Your task to perform on an android device: Search for the best rated tool bag on Lowe's. Image 0: 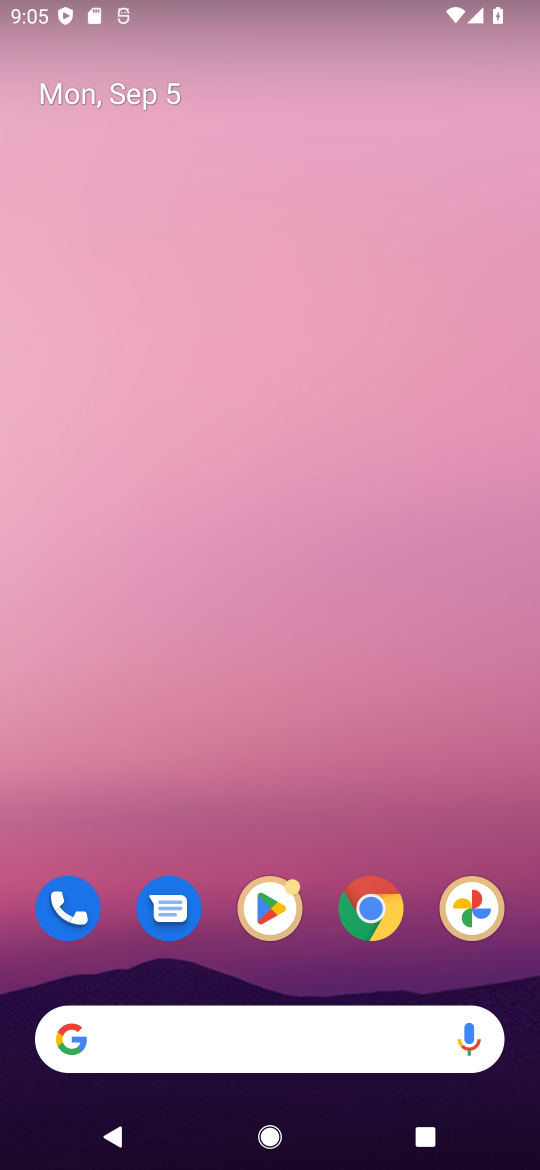
Step 0: drag from (220, 0) to (295, 34)
Your task to perform on an android device: Search for the best rated tool bag on Lowe's. Image 1: 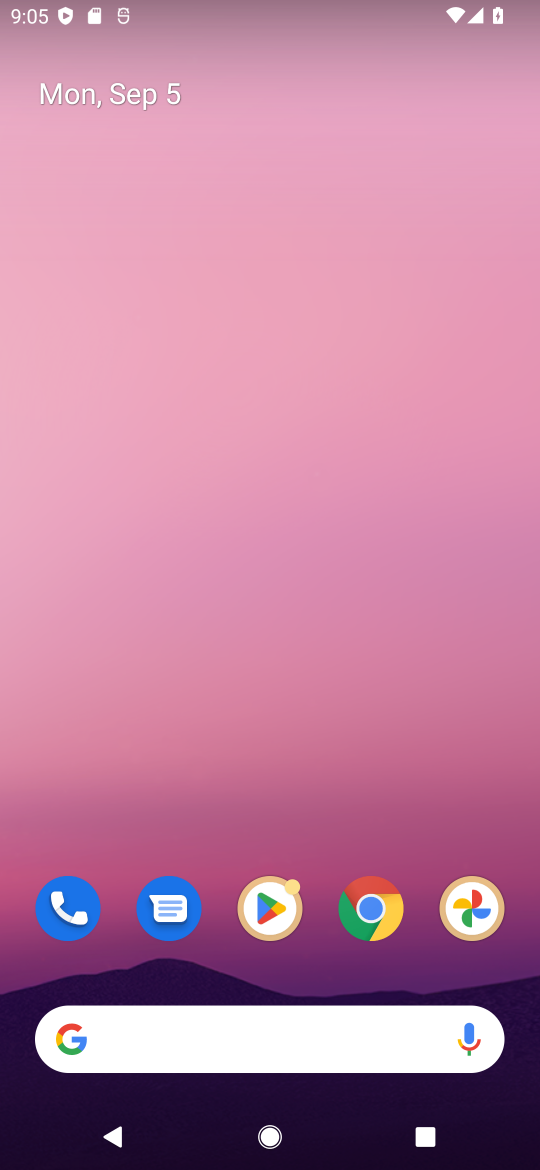
Step 1: click (372, 928)
Your task to perform on an android device: Search for the best rated tool bag on Lowe's. Image 2: 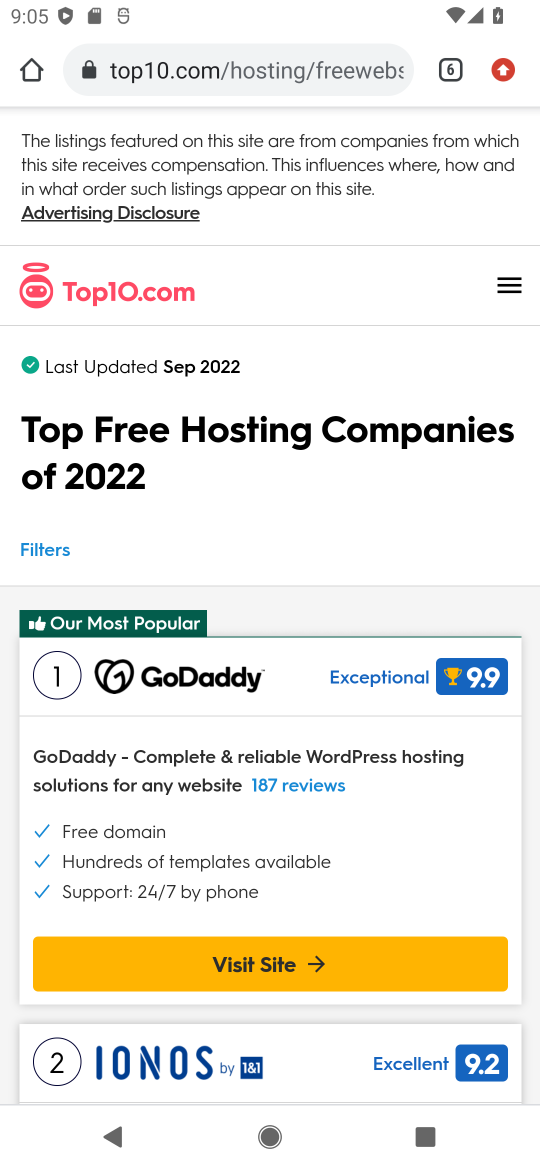
Step 2: click (236, 60)
Your task to perform on an android device: Search for the best rated tool bag on Lowe's. Image 3: 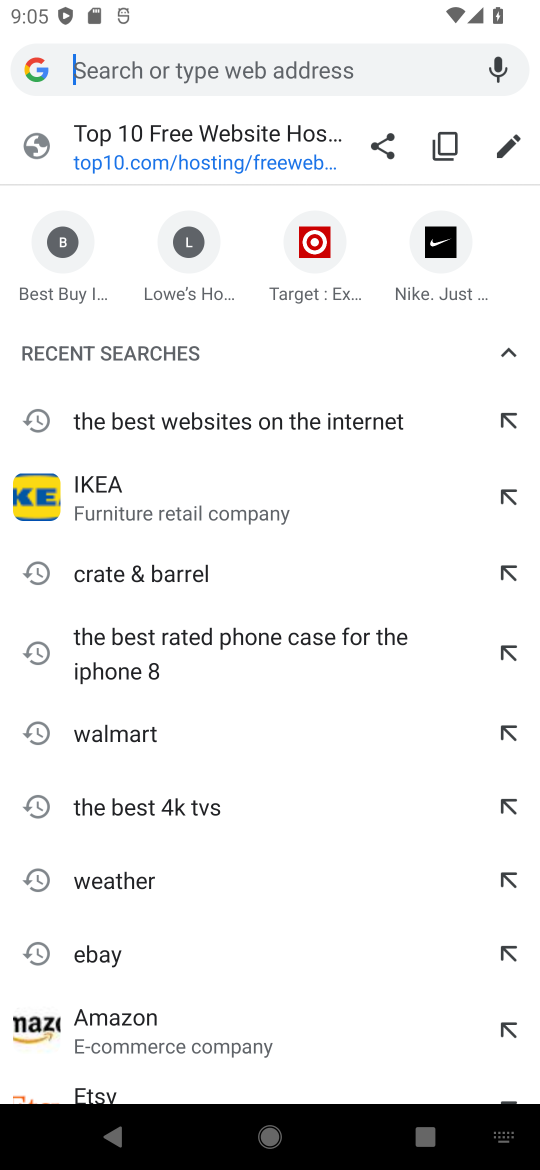
Step 3: type "Lowe's"
Your task to perform on an android device: Search for the best rated tool bag on Lowe's. Image 4: 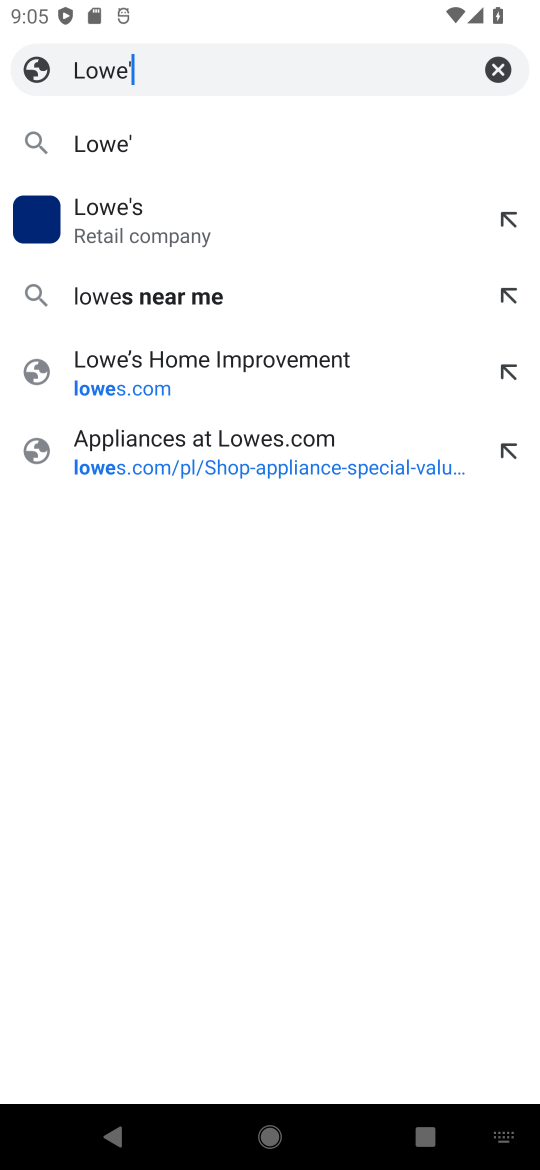
Step 4: type ""
Your task to perform on an android device: Search for the best rated tool bag on Lowe's. Image 5: 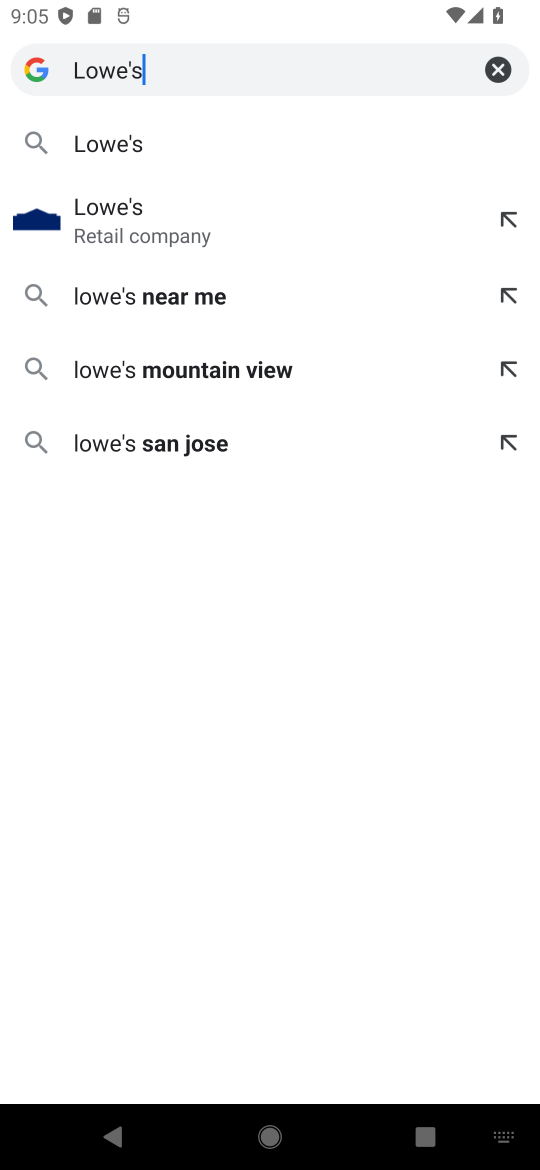
Step 5: click (145, 168)
Your task to perform on an android device: Search for the best rated tool bag on Lowe's. Image 6: 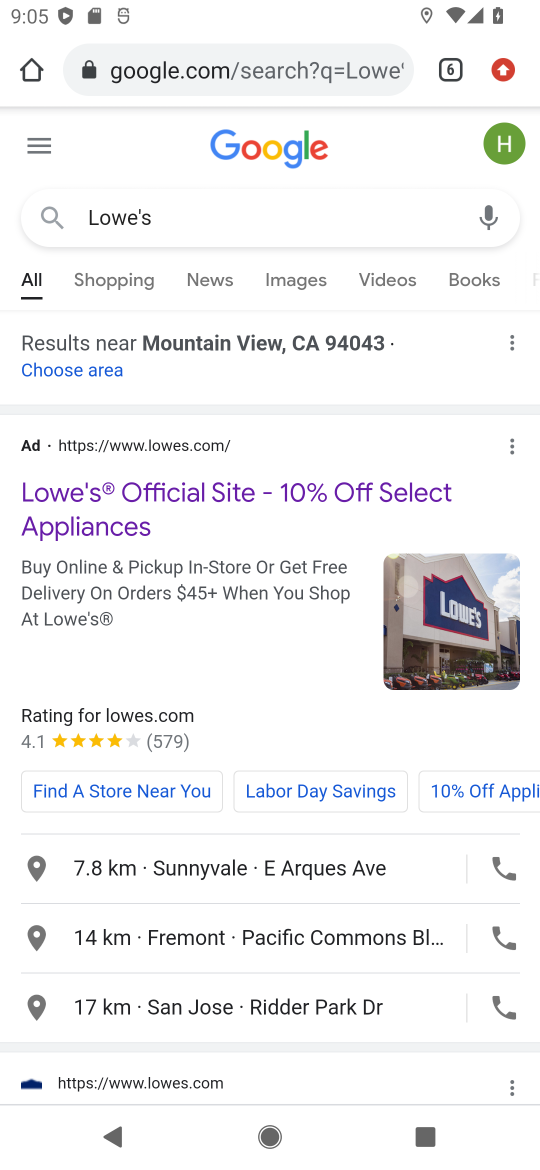
Step 6: click (157, 508)
Your task to perform on an android device: Search for the best rated tool bag on Lowe's. Image 7: 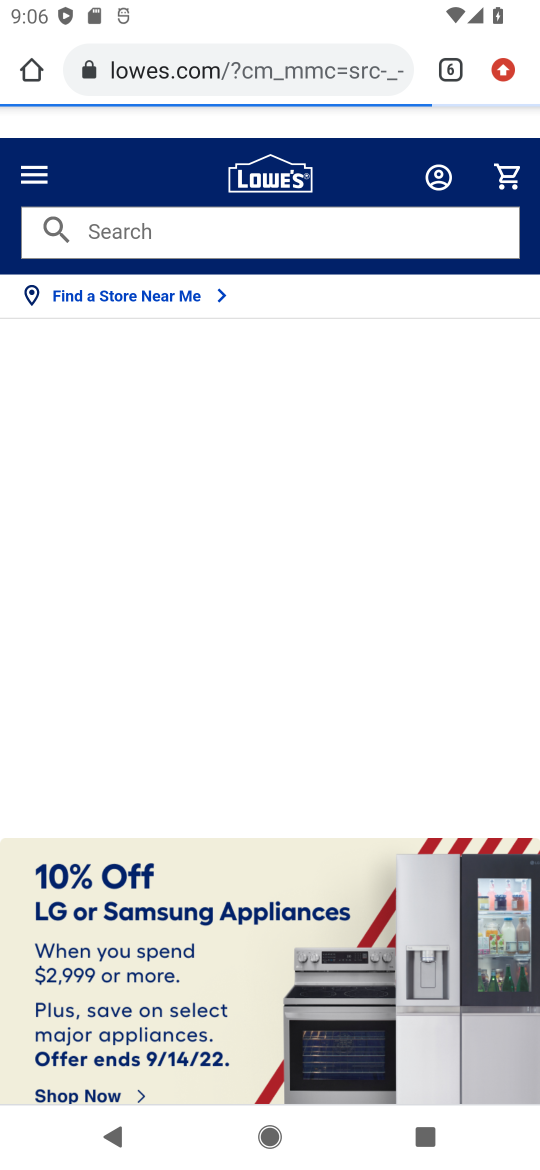
Step 7: click (160, 241)
Your task to perform on an android device: Search for the best rated tool bag on Lowe's. Image 8: 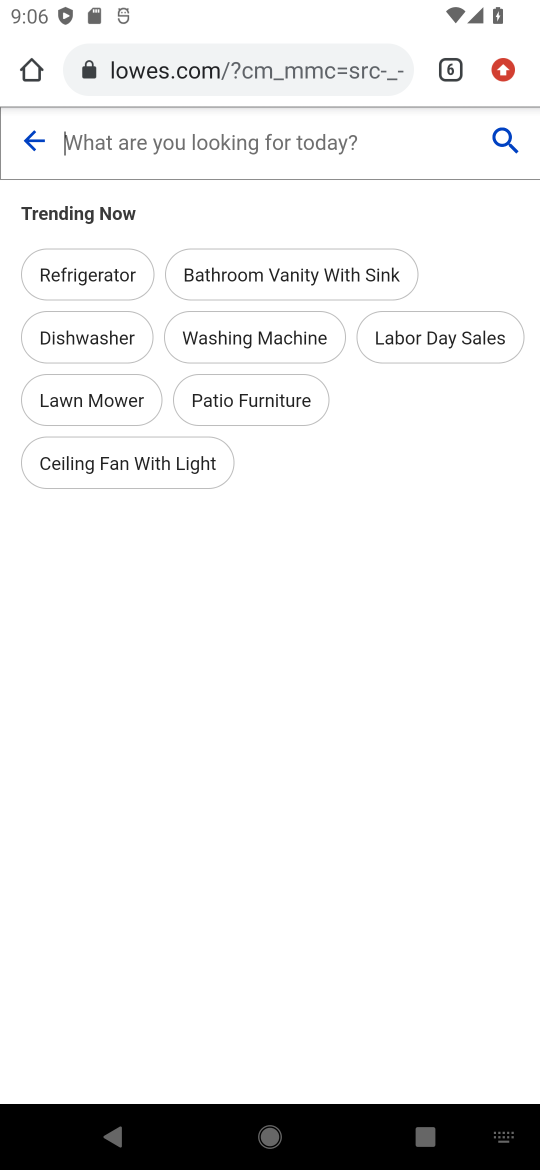
Step 8: type " the best rated tool bag "
Your task to perform on an android device: Search for the best rated tool bag on Lowe's. Image 9: 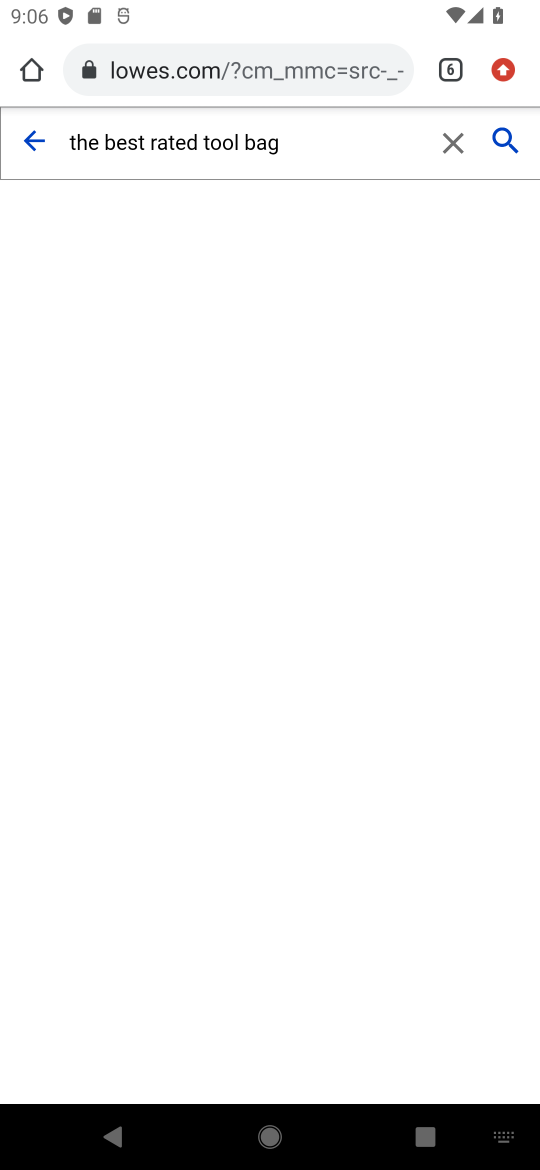
Step 9: click (502, 134)
Your task to perform on an android device: Search for the best rated tool bag on Lowe's. Image 10: 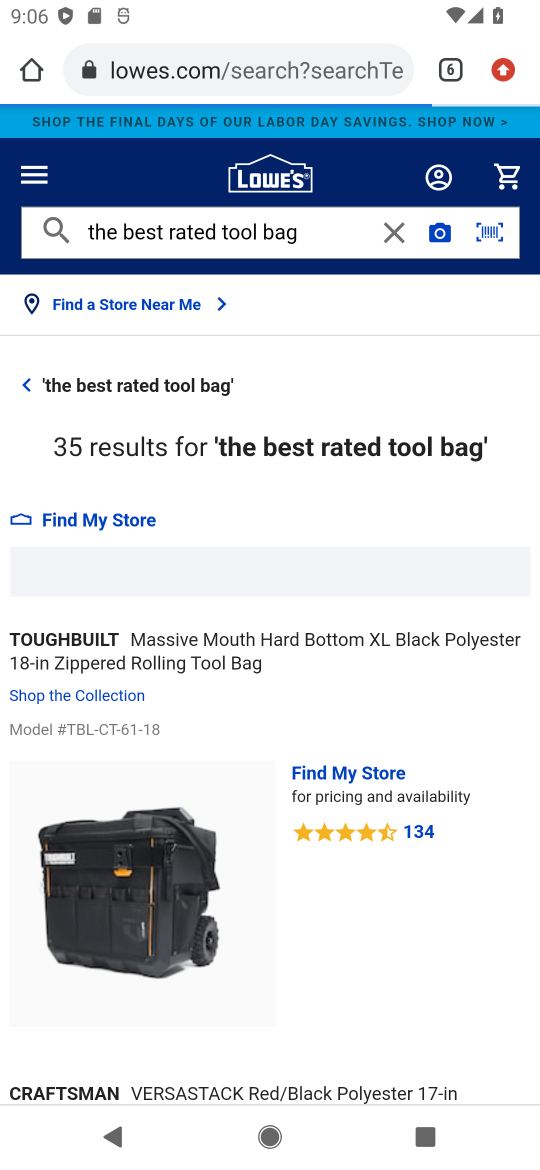
Step 10: task complete